Your task to perform on an android device: How big is the sun? Image 0: 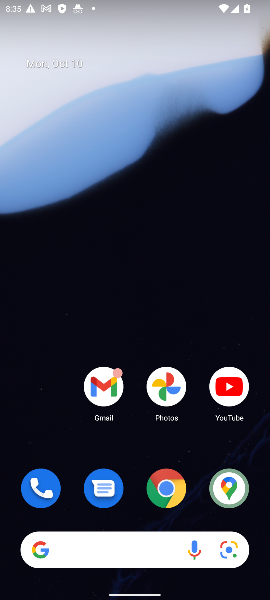
Step 0: drag from (137, 446) to (189, 5)
Your task to perform on an android device: How big is the sun? Image 1: 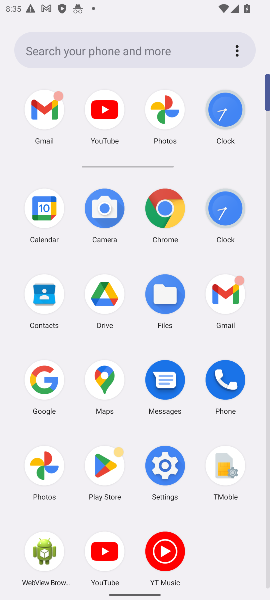
Step 1: click (158, 208)
Your task to perform on an android device: How big is the sun? Image 2: 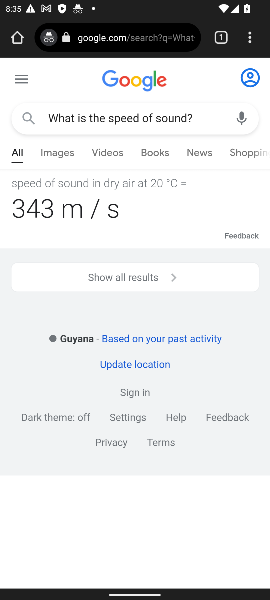
Step 2: click (131, 41)
Your task to perform on an android device: How big is the sun? Image 3: 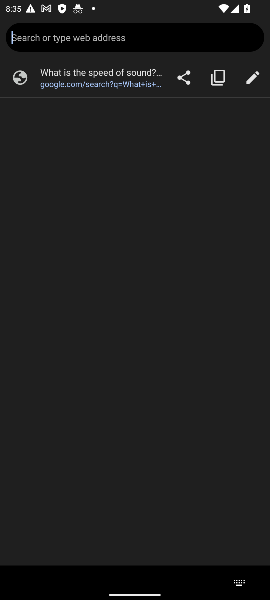
Step 3: type "How big is the sun?"
Your task to perform on an android device: How big is the sun? Image 4: 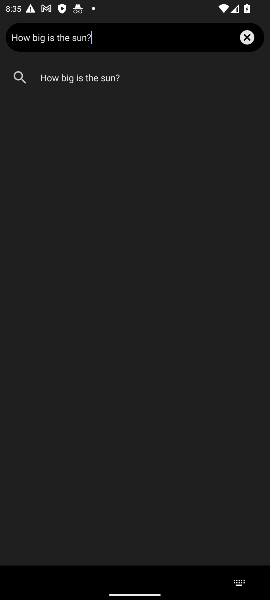
Step 4: press enter
Your task to perform on an android device: How big is the sun? Image 5: 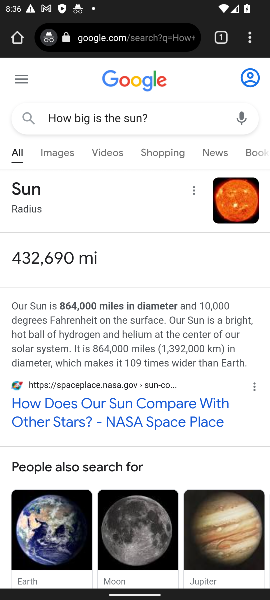
Step 5: task complete